Your task to perform on an android device: change text size in settings app Image 0: 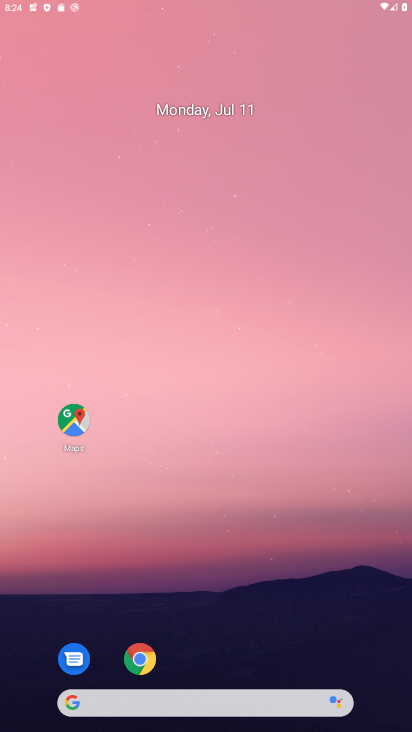
Step 0: drag from (224, 658) to (307, 140)
Your task to perform on an android device: change text size in settings app Image 1: 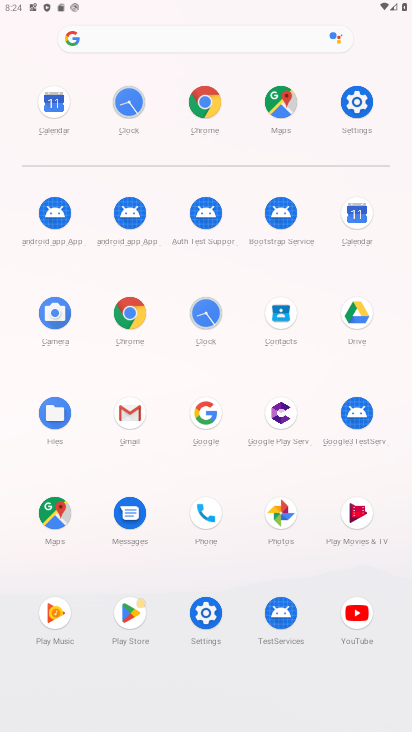
Step 1: click (199, 633)
Your task to perform on an android device: change text size in settings app Image 2: 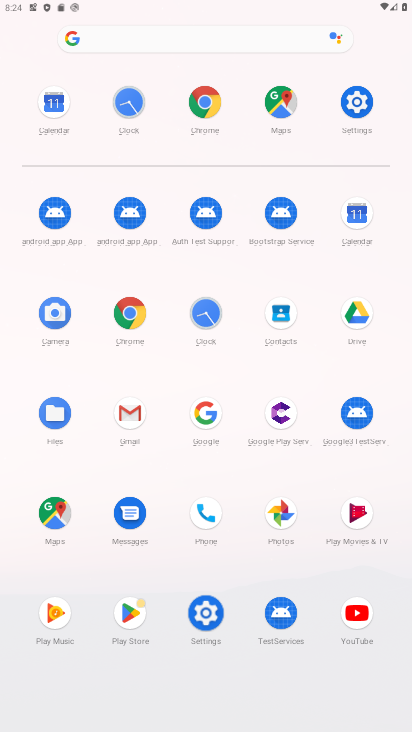
Step 2: click (199, 631)
Your task to perform on an android device: change text size in settings app Image 3: 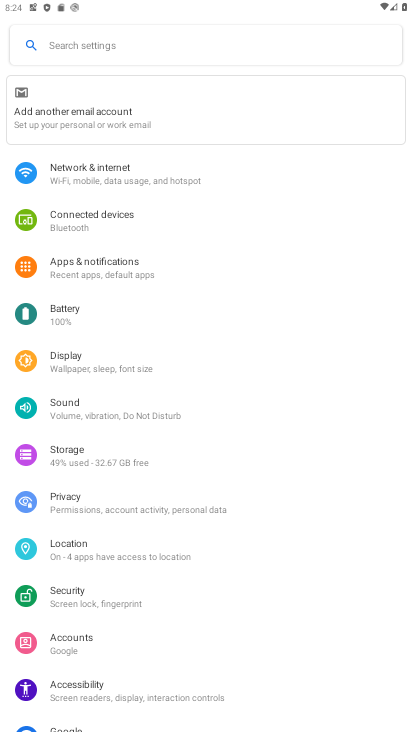
Step 3: click (81, 364)
Your task to perform on an android device: change text size in settings app Image 4: 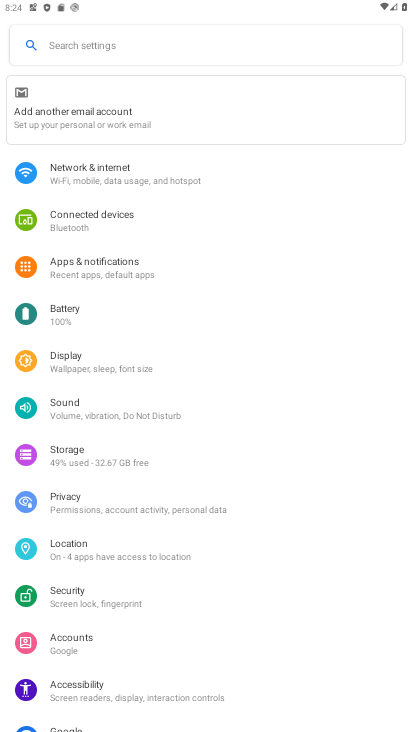
Step 4: click (81, 364)
Your task to perform on an android device: change text size in settings app Image 5: 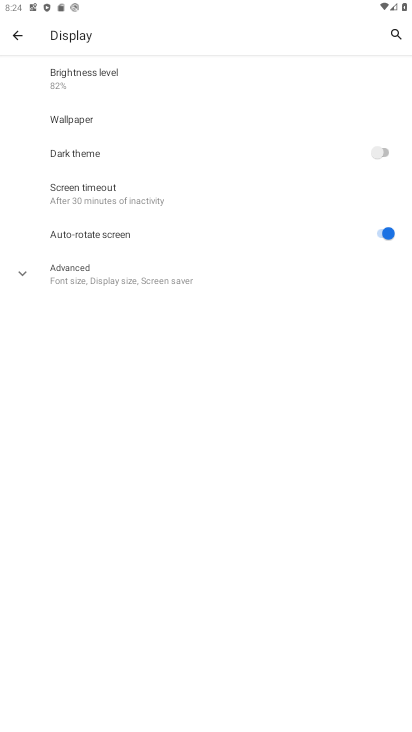
Step 5: click (135, 274)
Your task to perform on an android device: change text size in settings app Image 6: 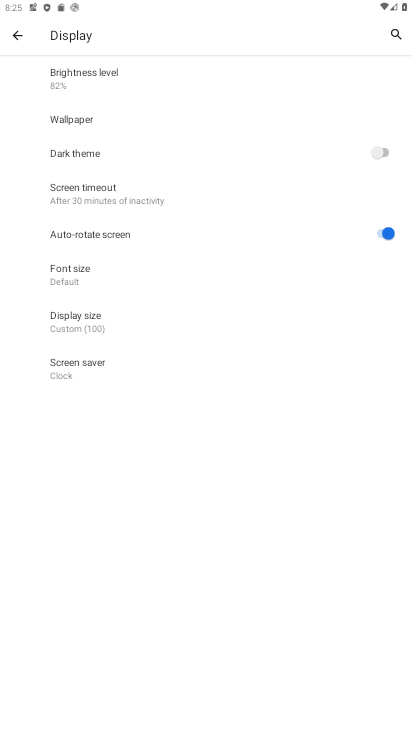
Step 6: click (86, 282)
Your task to perform on an android device: change text size in settings app Image 7: 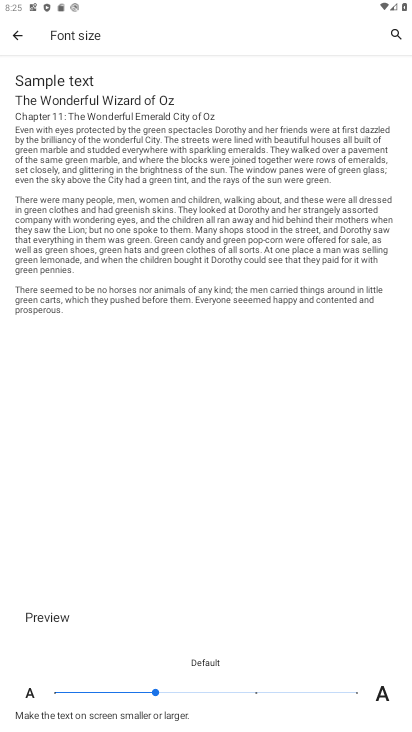
Step 7: click (240, 690)
Your task to perform on an android device: change text size in settings app Image 8: 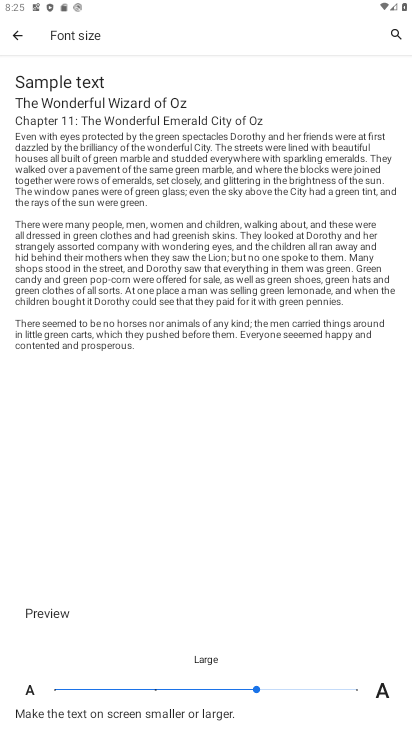
Step 8: click (350, 690)
Your task to perform on an android device: change text size in settings app Image 9: 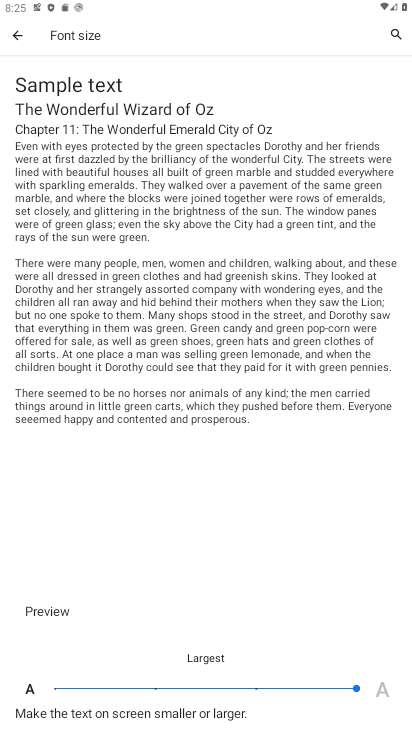
Step 9: click (21, 39)
Your task to perform on an android device: change text size in settings app Image 10: 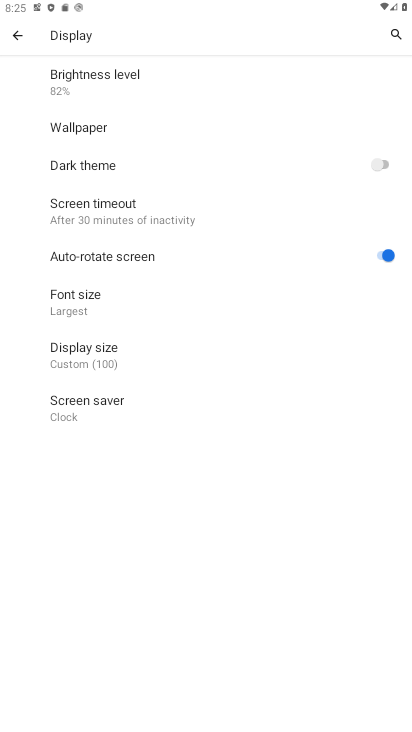
Step 10: click (12, 40)
Your task to perform on an android device: change text size in settings app Image 11: 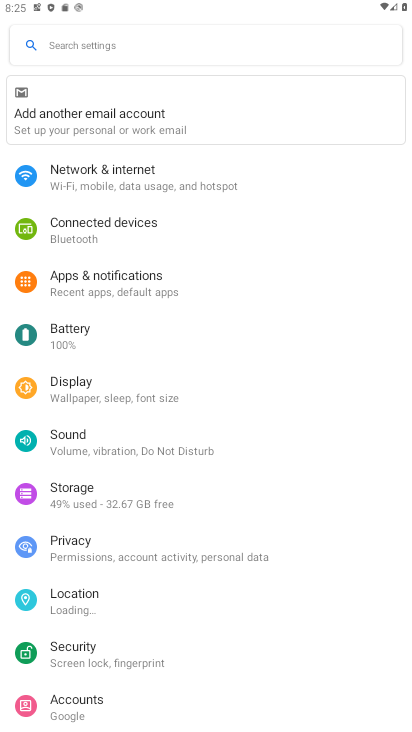
Step 11: task complete